Your task to perform on an android device: turn off picture-in-picture Image 0: 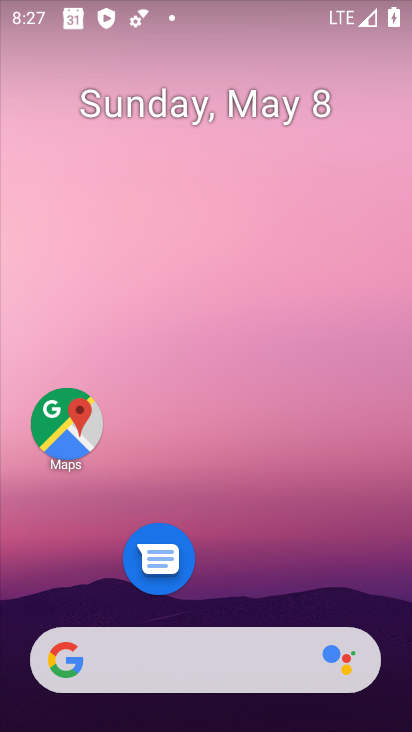
Step 0: click (409, 540)
Your task to perform on an android device: turn off picture-in-picture Image 1: 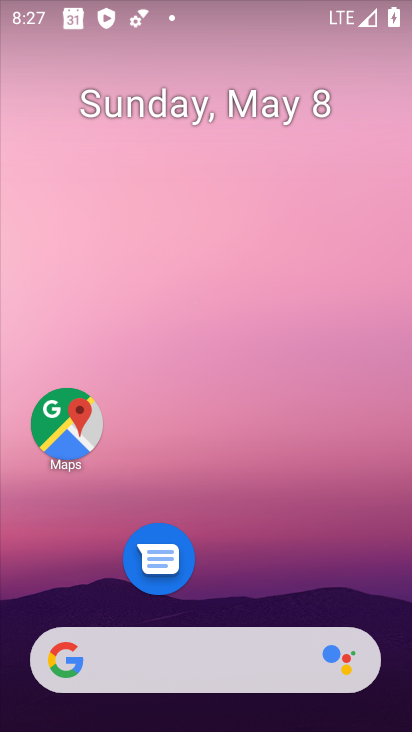
Step 1: drag from (269, 627) to (284, 8)
Your task to perform on an android device: turn off picture-in-picture Image 2: 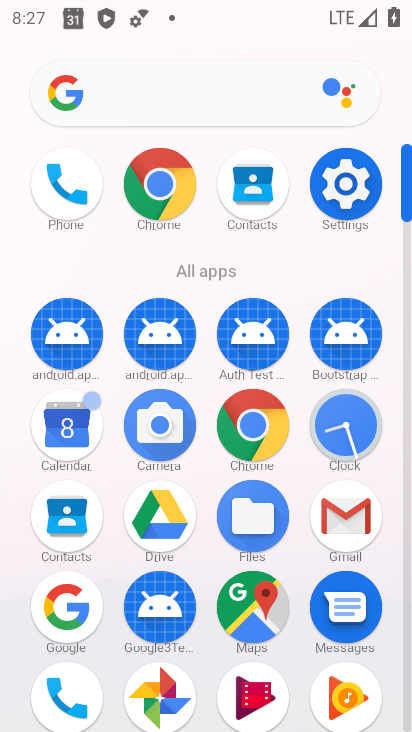
Step 2: drag from (294, 608) to (287, 201)
Your task to perform on an android device: turn off picture-in-picture Image 3: 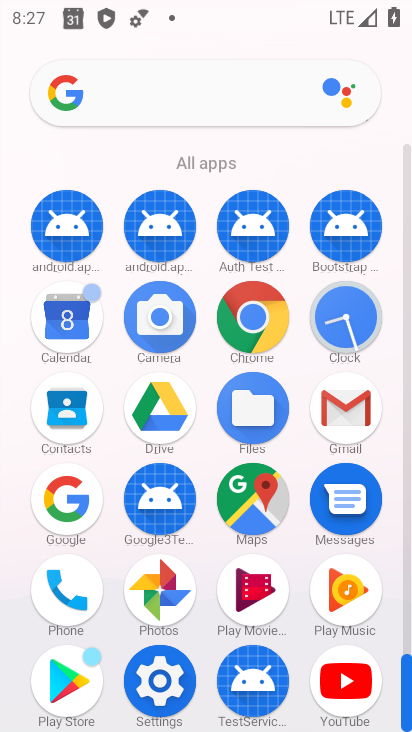
Step 3: click (188, 678)
Your task to perform on an android device: turn off picture-in-picture Image 4: 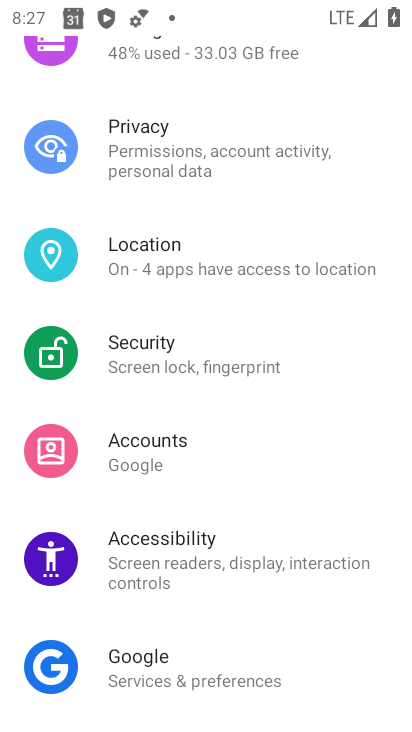
Step 4: drag from (227, 182) to (247, 725)
Your task to perform on an android device: turn off picture-in-picture Image 5: 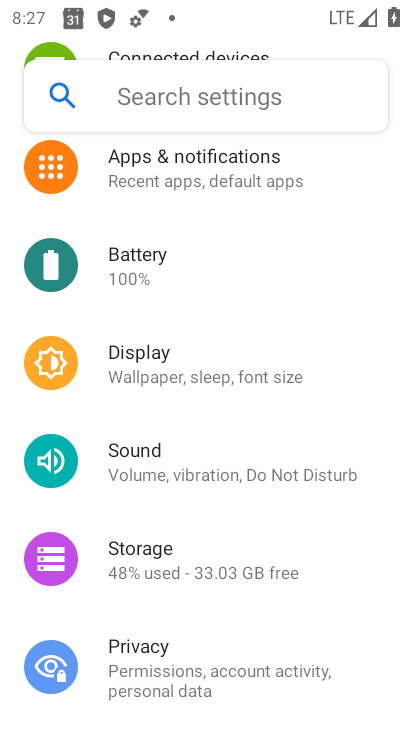
Step 5: click (218, 176)
Your task to perform on an android device: turn off picture-in-picture Image 6: 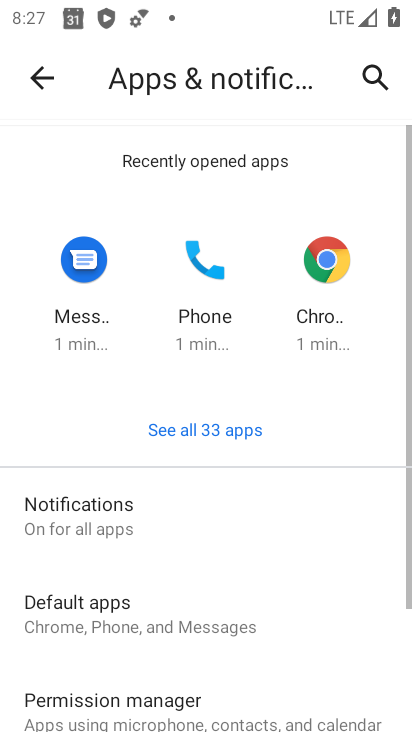
Step 6: drag from (305, 713) to (294, 243)
Your task to perform on an android device: turn off picture-in-picture Image 7: 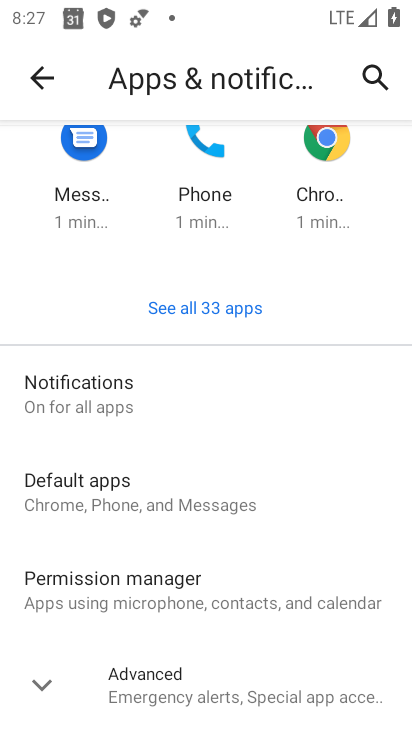
Step 7: click (233, 702)
Your task to perform on an android device: turn off picture-in-picture Image 8: 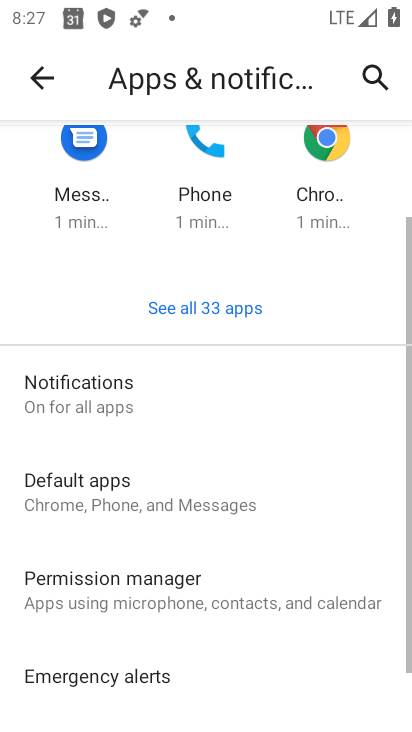
Step 8: drag from (234, 696) to (248, 200)
Your task to perform on an android device: turn off picture-in-picture Image 9: 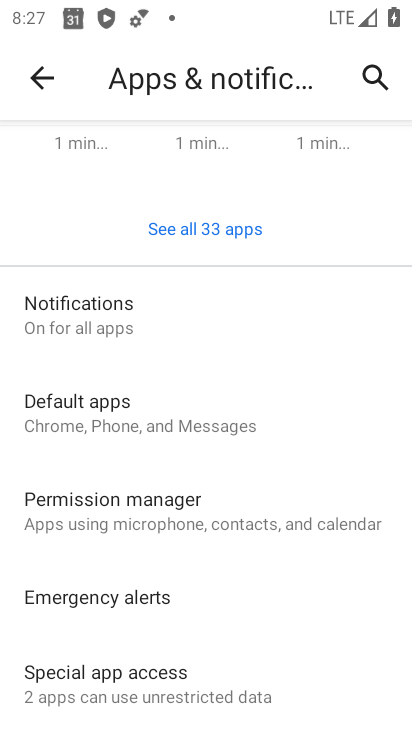
Step 9: click (195, 682)
Your task to perform on an android device: turn off picture-in-picture Image 10: 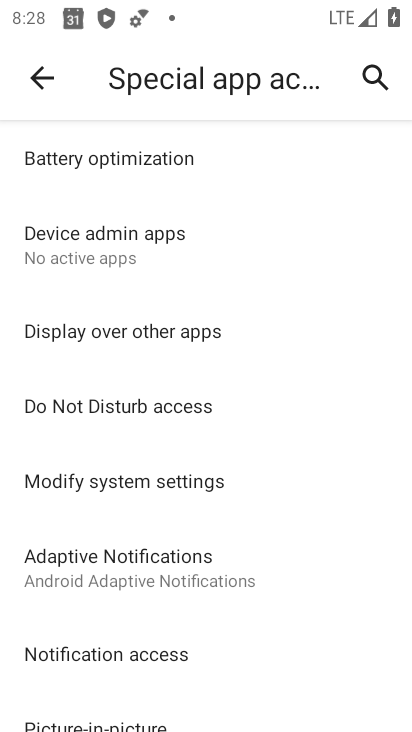
Step 10: drag from (219, 676) to (256, 371)
Your task to perform on an android device: turn off picture-in-picture Image 11: 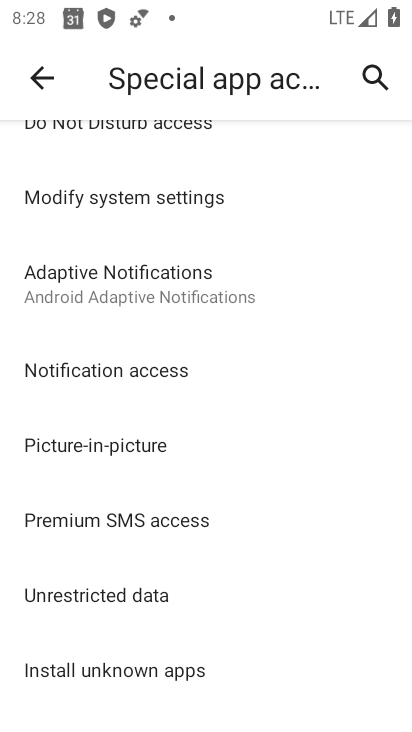
Step 11: click (160, 445)
Your task to perform on an android device: turn off picture-in-picture Image 12: 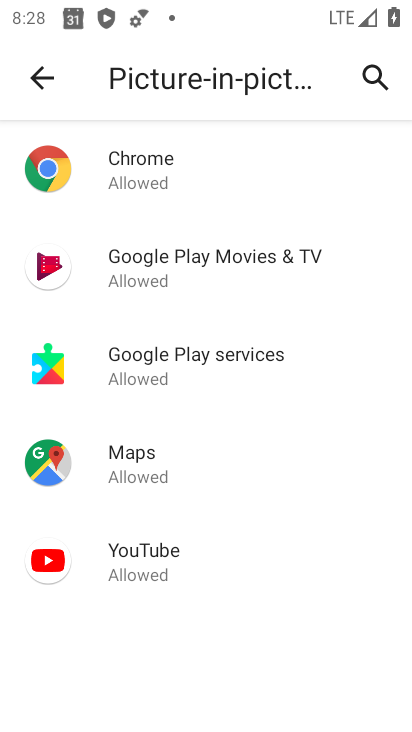
Step 12: click (129, 171)
Your task to perform on an android device: turn off picture-in-picture Image 13: 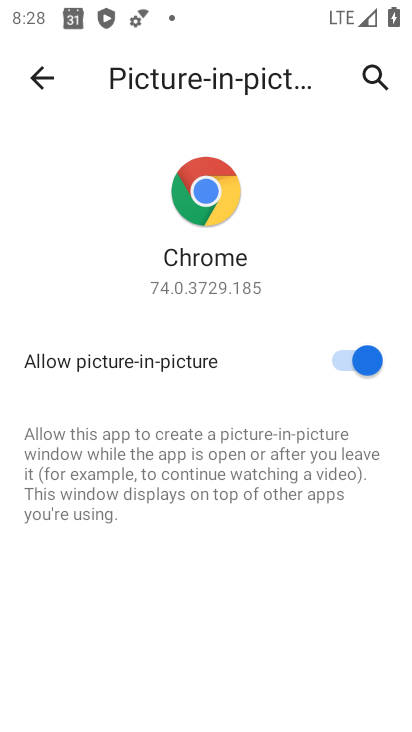
Step 13: click (337, 360)
Your task to perform on an android device: turn off picture-in-picture Image 14: 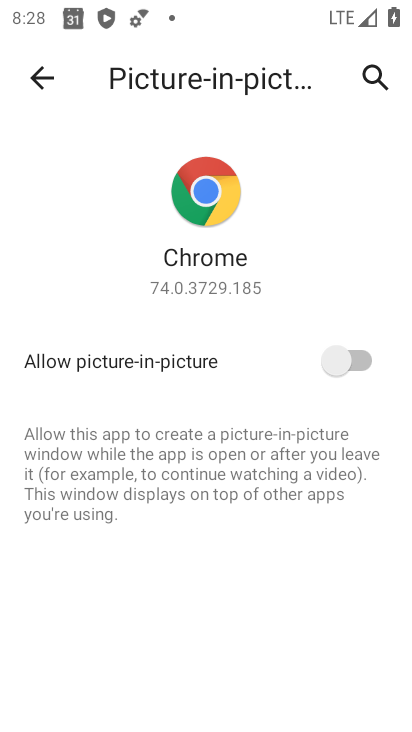
Step 14: click (37, 67)
Your task to perform on an android device: turn off picture-in-picture Image 15: 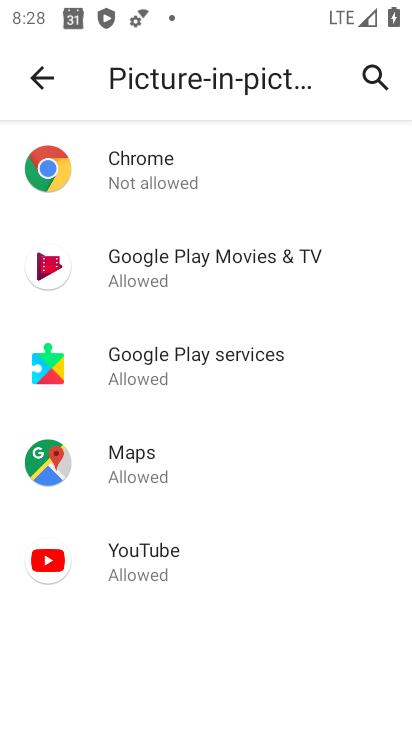
Step 15: click (189, 259)
Your task to perform on an android device: turn off picture-in-picture Image 16: 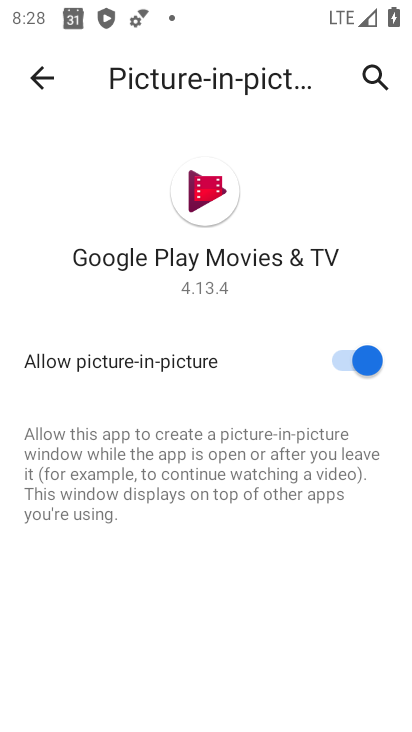
Step 16: click (339, 354)
Your task to perform on an android device: turn off picture-in-picture Image 17: 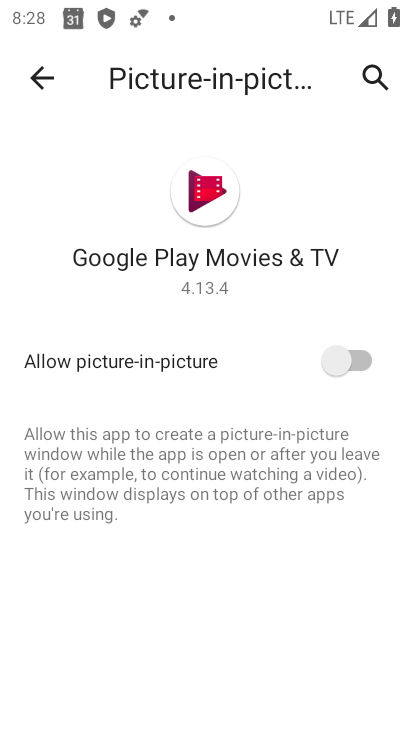
Step 17: press back button
Your task to perform on an android device: turn off picture-in-picture Image 18: 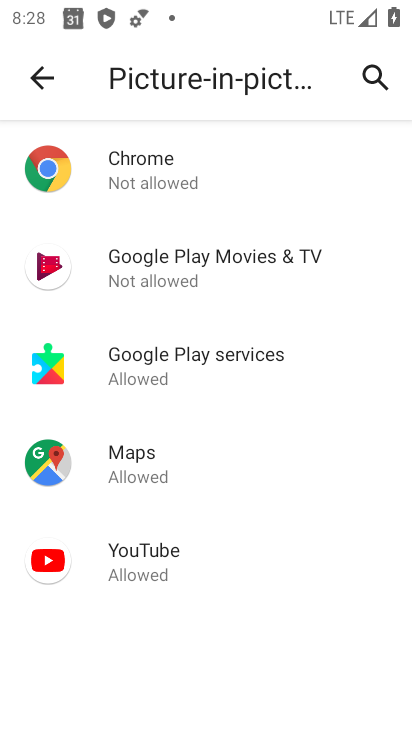
Step 18: click (238, 379)
Your task to perform on an android device: turn off picture-in-picture Image 19: 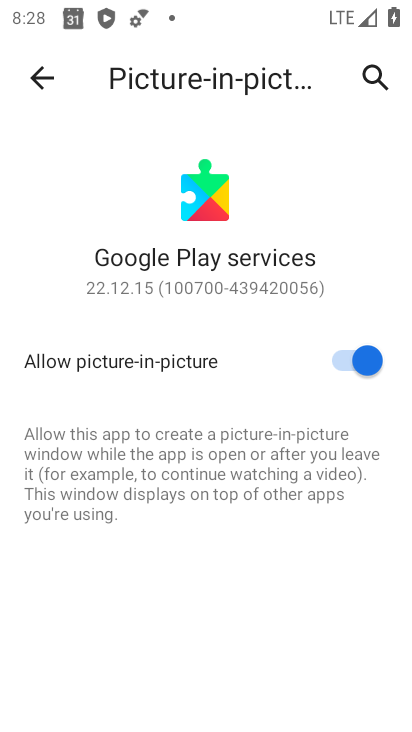
Step 19: click (349, 357)
Your task to perform on an android device: turn off picture-in-picture Image 20: 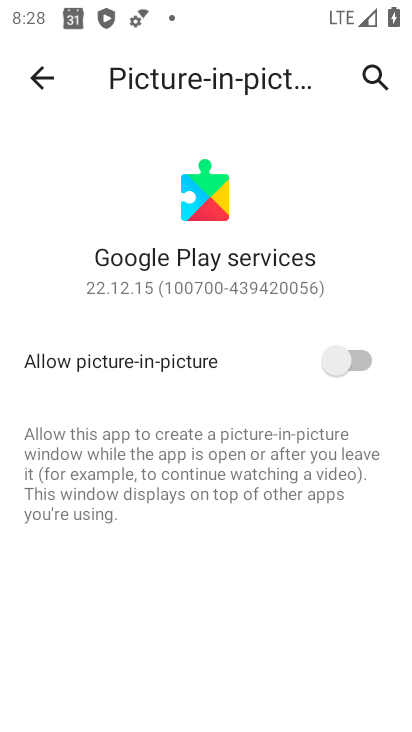
Step 20: press back button
Your task to perform on an android device: turn off picture-in-picture Image 21: 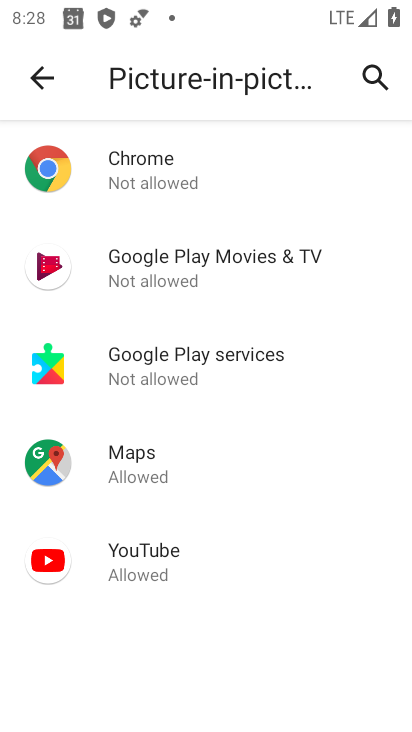
Step 21: click (220, 466)
Your task to perform on an android device: turn off picture-in-picture Image 22: 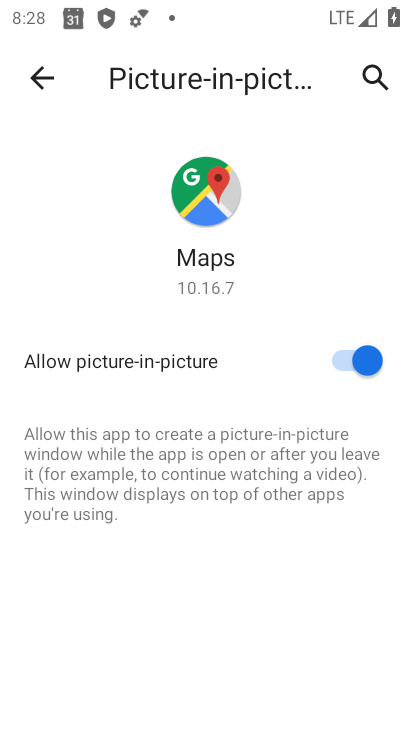
Step 22: click (357, 356)
Your task to perform on an android device: turn off picture-in-picture Image 23: 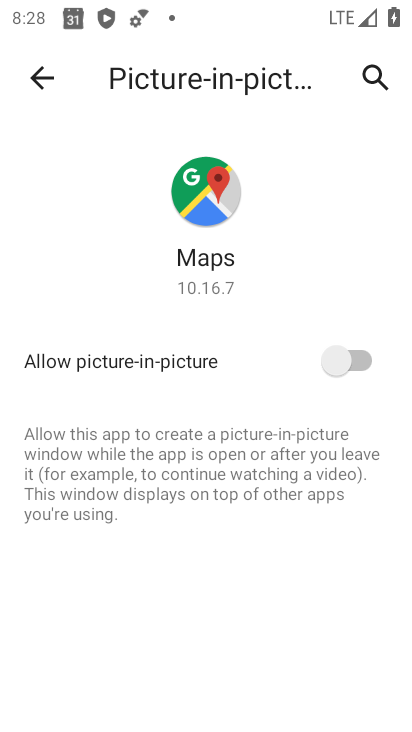
Step 23: press back button
Your task to perform on an android device: turn off picture-in-picture Image 24: 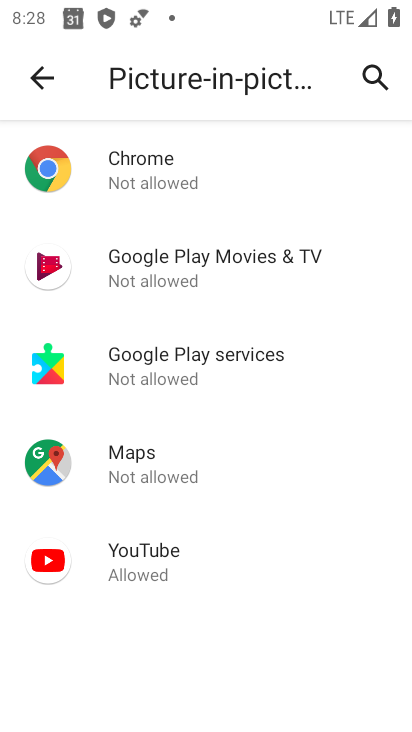
Step 24: click (195, 568)
Your task to perform on an android device: turn off picture-in-picture Image 25: 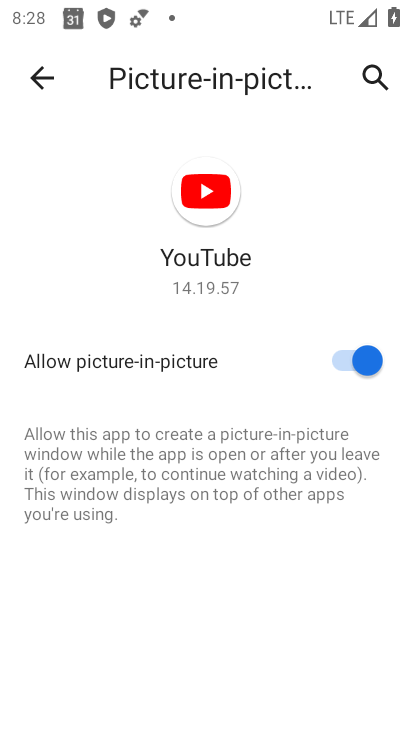
Step 25: click (340, 356)
Your task to perform on an android device: turn off picture-in-picture Image 26: 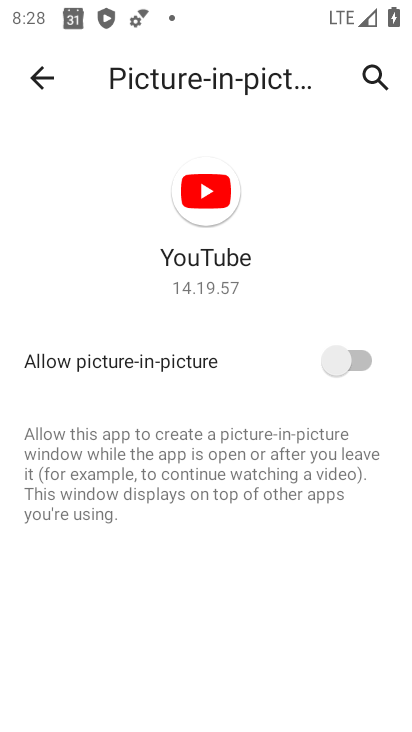
Step 26: task complete